Your task to perform on an android device: Open Google Maps and go to "Timeline" Image 0: 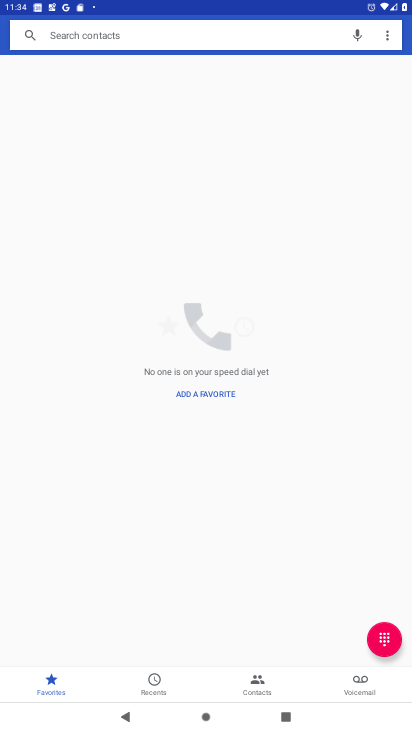
Step 0: press home button
Your task to perform on an android device: Open Google Maps and go to "Timeline" Image 1: 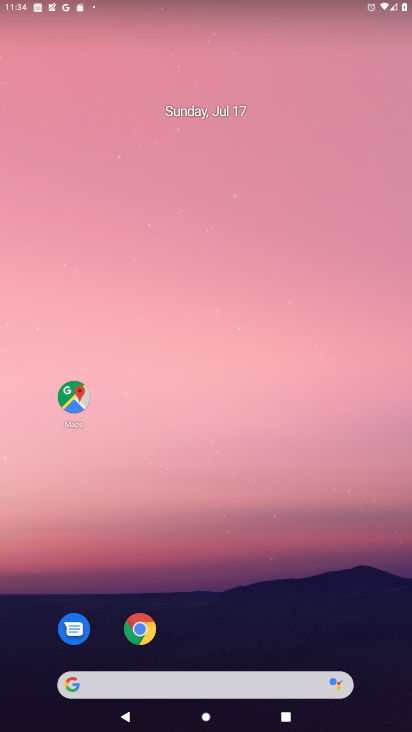
Step 1: click (73, 399)
Your task to perform on an android device: Open Google Maps and go to "Timeline" Image 2: 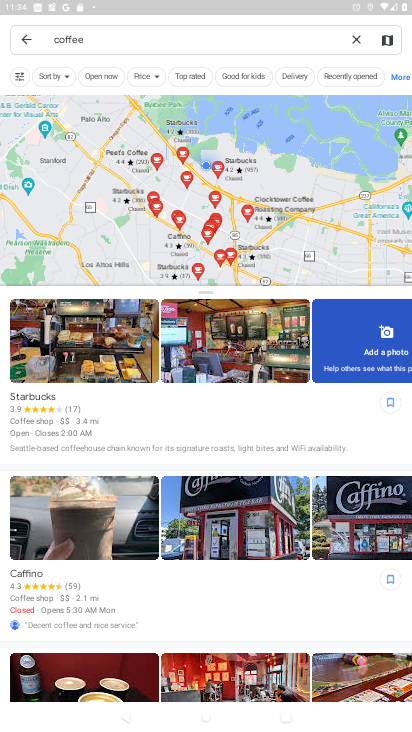
Step 2: press back button
Your task to perform on an android device: Open Google Maps and go to "Timeline" Image 3: 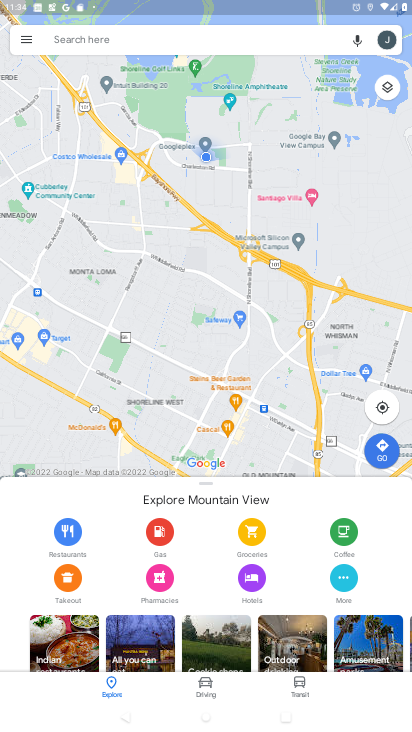
Step 3: click (28, 42)
Your task to perform on an android device: Open Google Maps and go to "Timeline" Image 4: 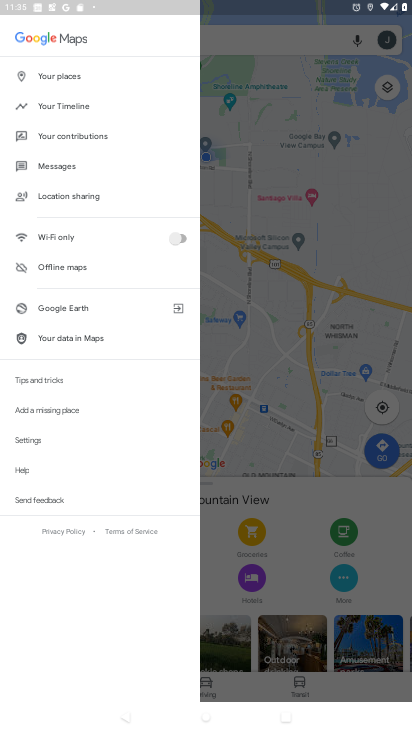
Step 4: click (61, 105)
Your task to perform on an android device: Open Google Maps and go to "Timeline" Image 5: 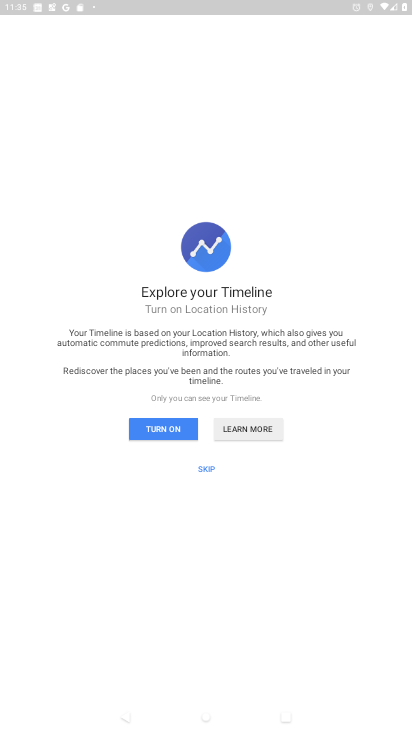
Step 5: click (180, 432)
Your task to perform on an android device: Open Google Maps and go to "Timeline" Image 6: 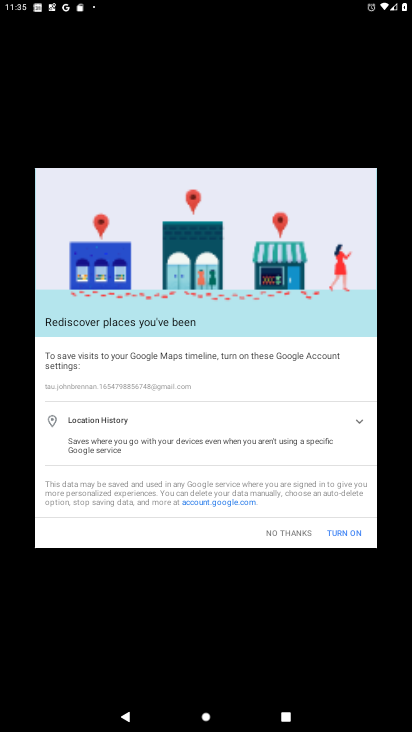
Step 6: click (335, 531)
Your task to perform on an android device: Open Google Maps and go to "Timeline" Image 7: 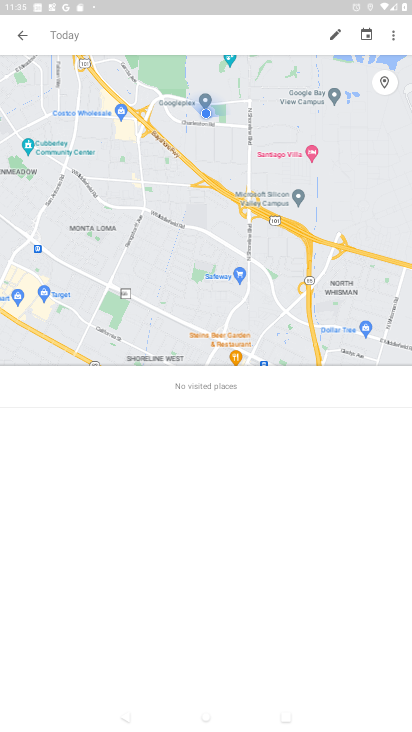
Step 7: task complete